Your task to perform on an android device: turn off priority inbox in the gmail app Image 0: 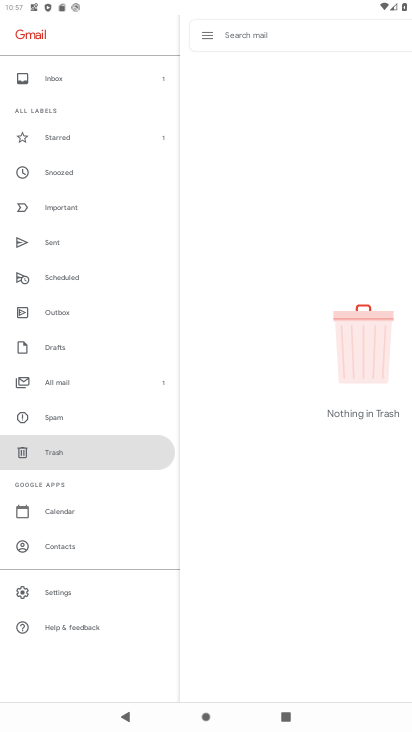
Step 0: press home button
Your task to perform on an android device: turn off priority inbox in the gmail app Image 1: 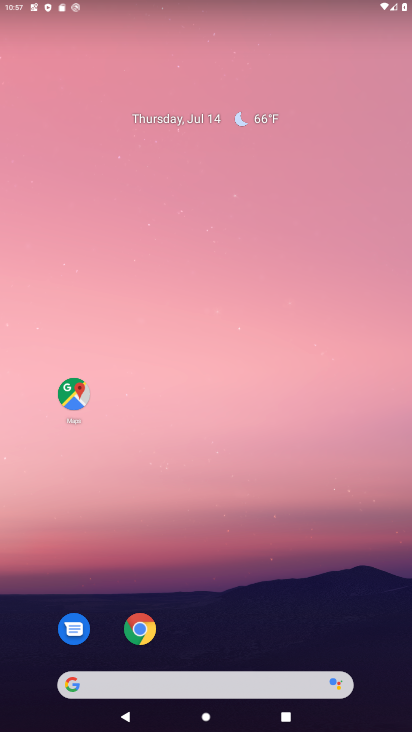
Step 1: drag from (310, 627) to (247, 156)
Your task to perform on an android device: turn off priority inbox in the gmail app Image 2: 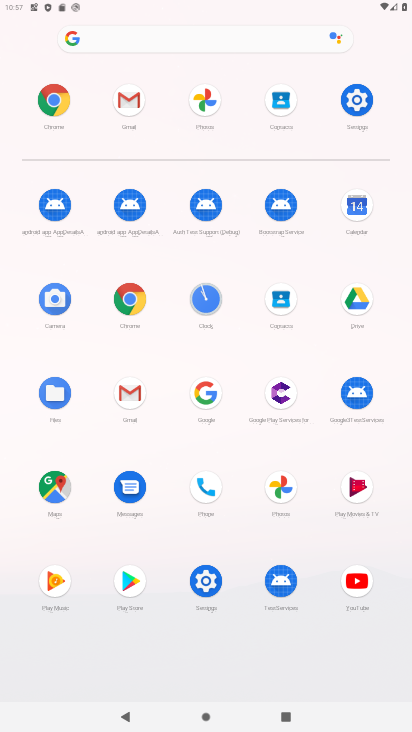
Step 2: click (130, 102)
Your task to perform on an android device: turn off priority inbox in the gmail app Image 3: 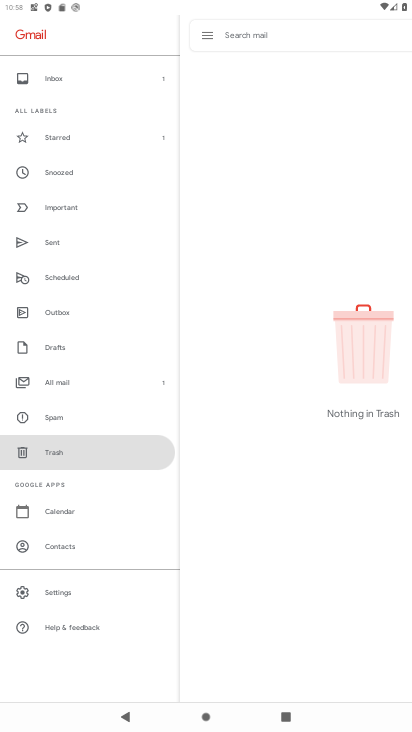
Step 3: click (61, 592)
Your task to perform on an android device: turn off priority inbox in the gmail app Image 4: 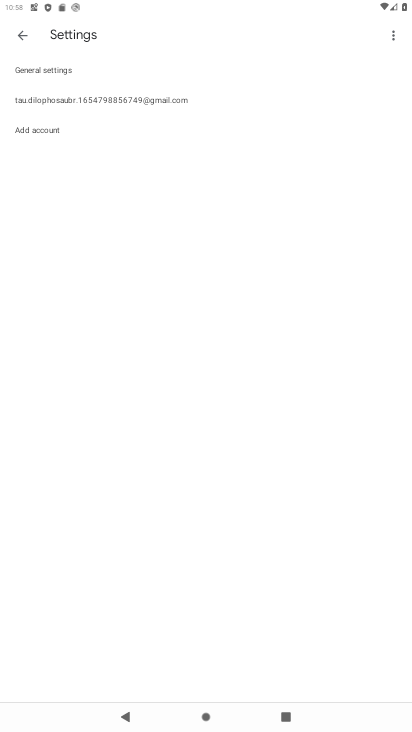
Step 4: click (78, 101)
Your task to perform on an android device: turn off priority inbox in the gmail app Image 5: 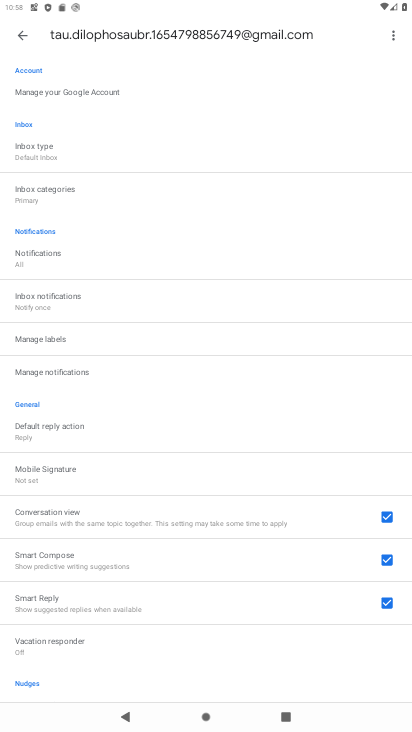
Step 5: click (36, 156)
Your task to perform on an android device: turn off priority inbox in the gmail app Image 6: 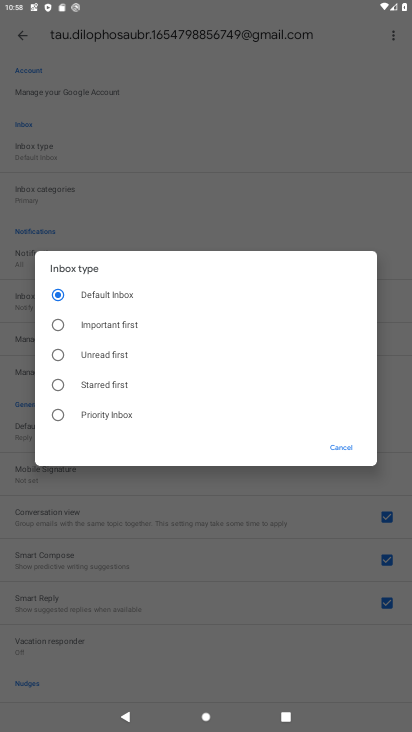
Step 6: task complete